Your task to perform on an android device: Go to Android settings Image 0: 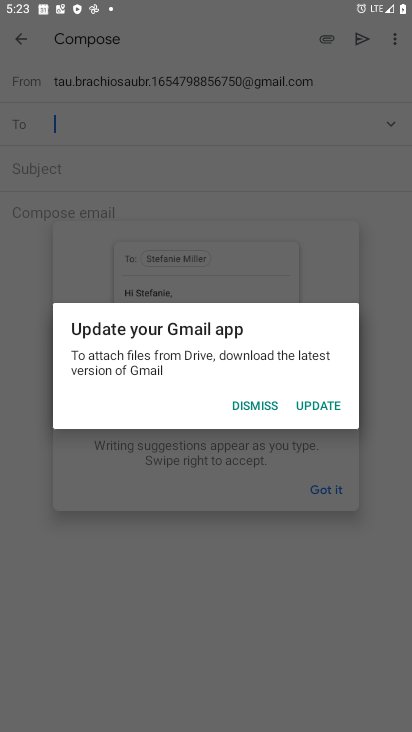
Step 0: press home button
Your task to perform on an android device: Go to Android settings Image 1: 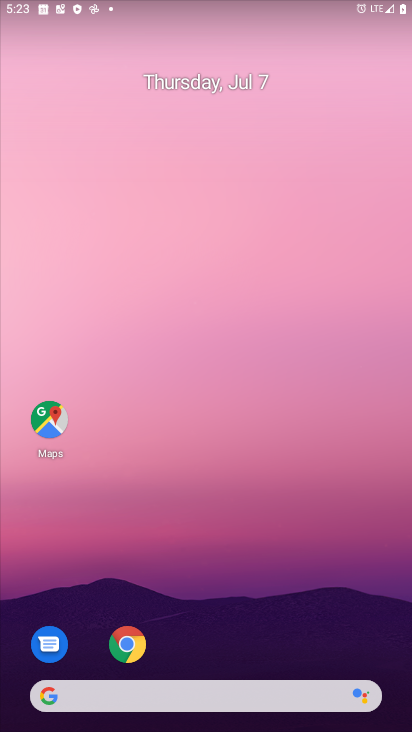
Step 1: drag from (235, 623) to (258, 5)
Your task to perform on an android device: Go to Android settings Image 2: 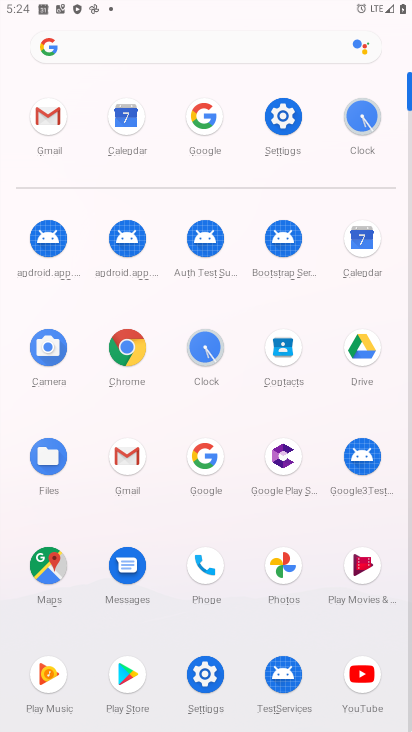
Step 2: click (280, 112)
Your task to perform on an android device: Go to Android settings Image 3: 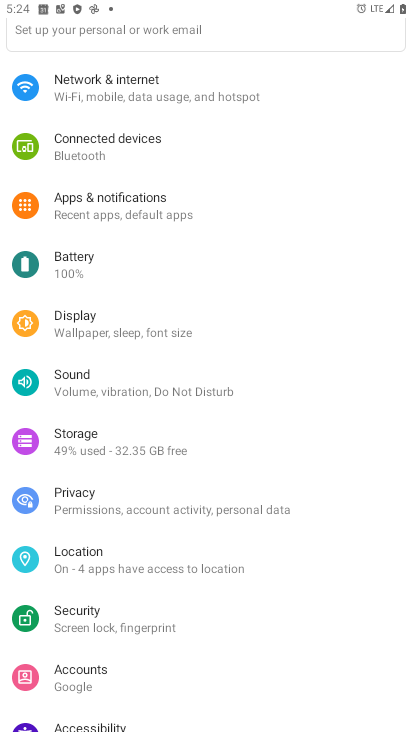
Step 3: task complete